Your task to perform on an android device: Search for custom made wallets on etsy.com Image 0: 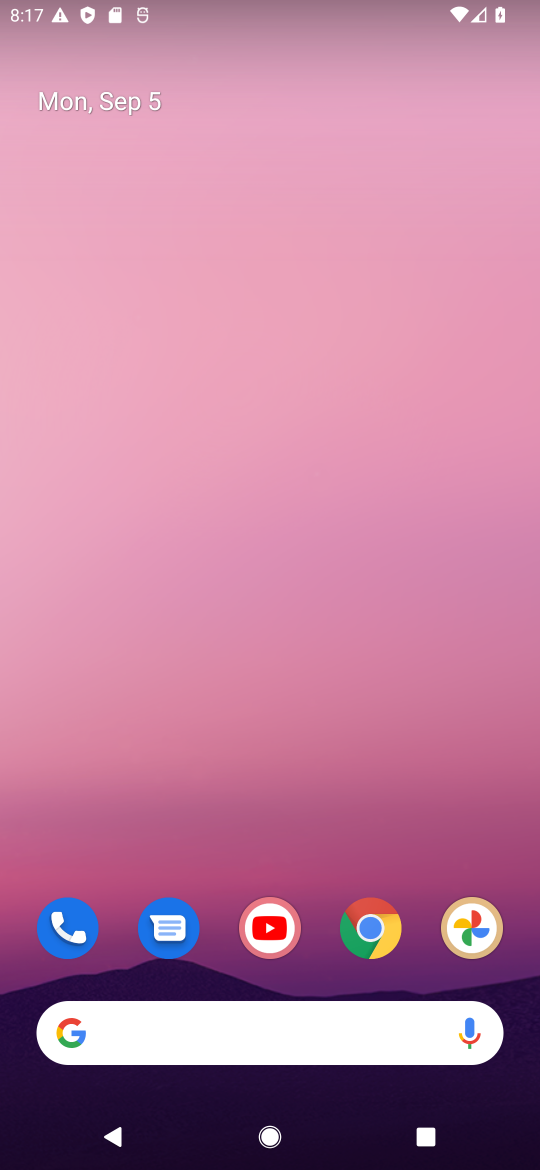
Step 0: click (369, 934)
Your task to perform on an android device: Search for custom made wallets on etsy.com Image 1: 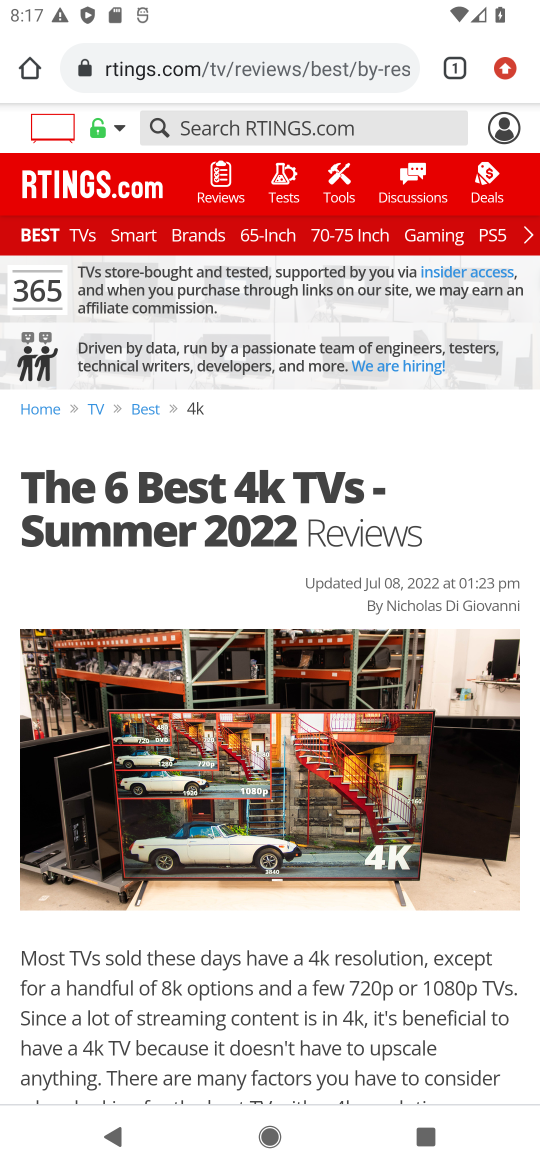
Step 1: click (253, 68)
Your task to perform on an android device: Search for custom made wallets on etsy.com Image 2: 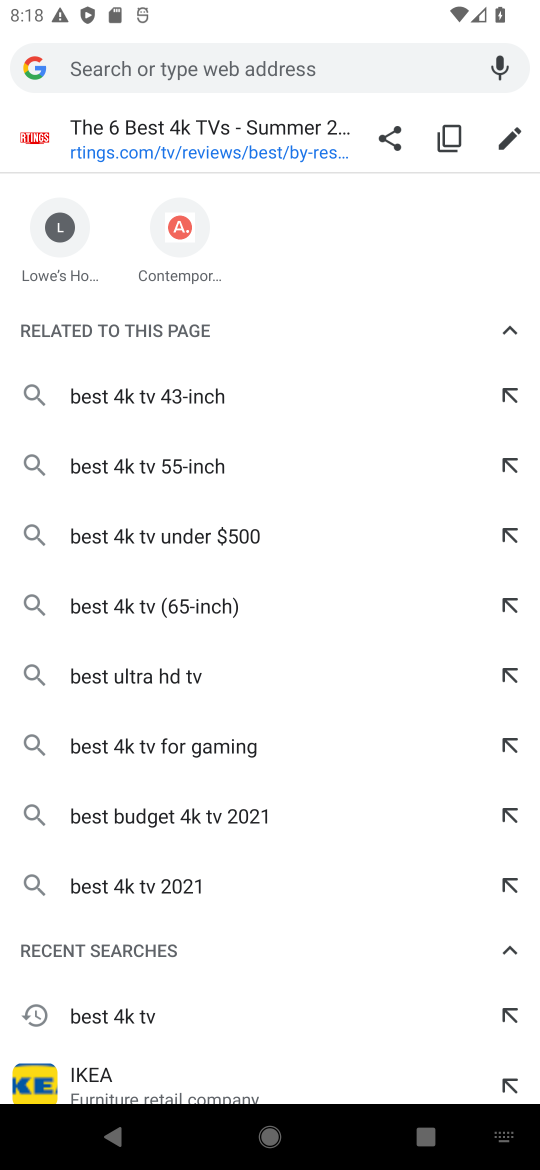
Step 2: type "etsy.com"
Your task to perform on an android device: Search for custom made wallets on etsy.com Image 3: 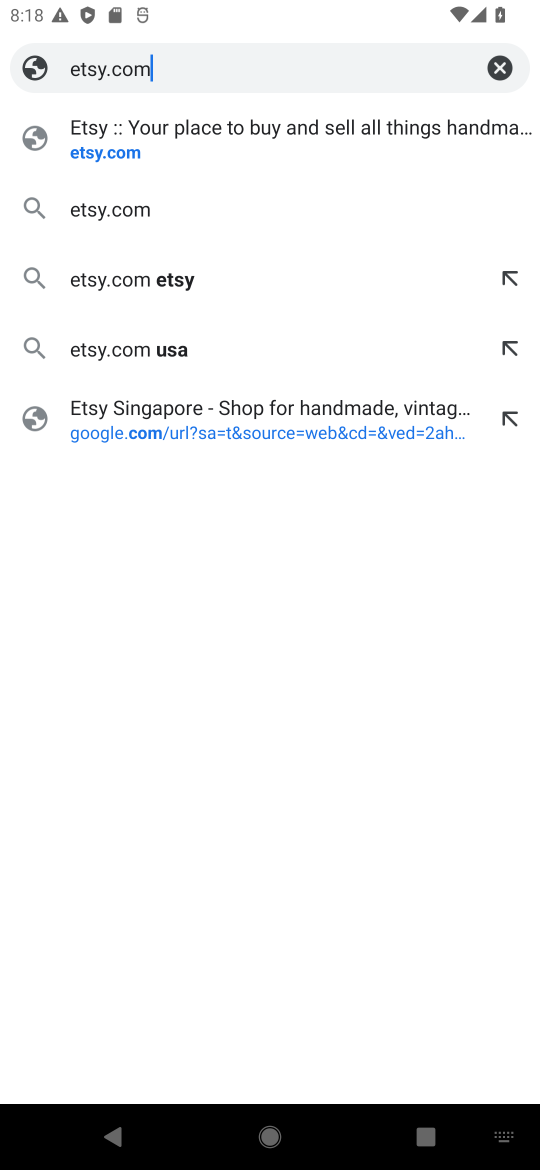
Step 3: click (206, 131)
Your task to perform on an android device: Search for custom made wallets on etsy.com Image 4: 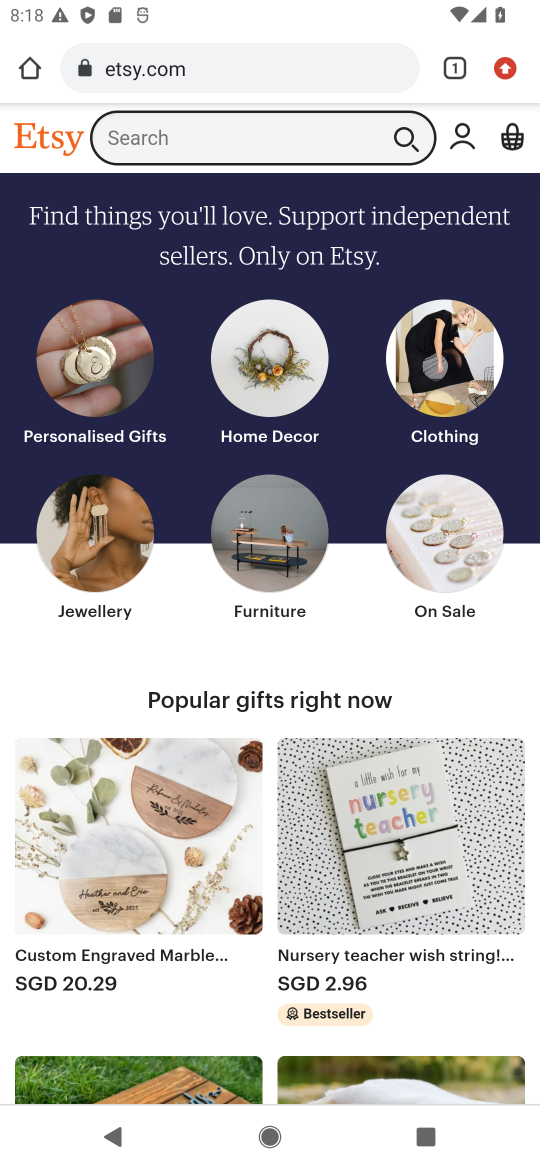
Step 4: click (320, 135)
Your task to perform on an android device: Search for custom made wallets on etsy.com Image 5: 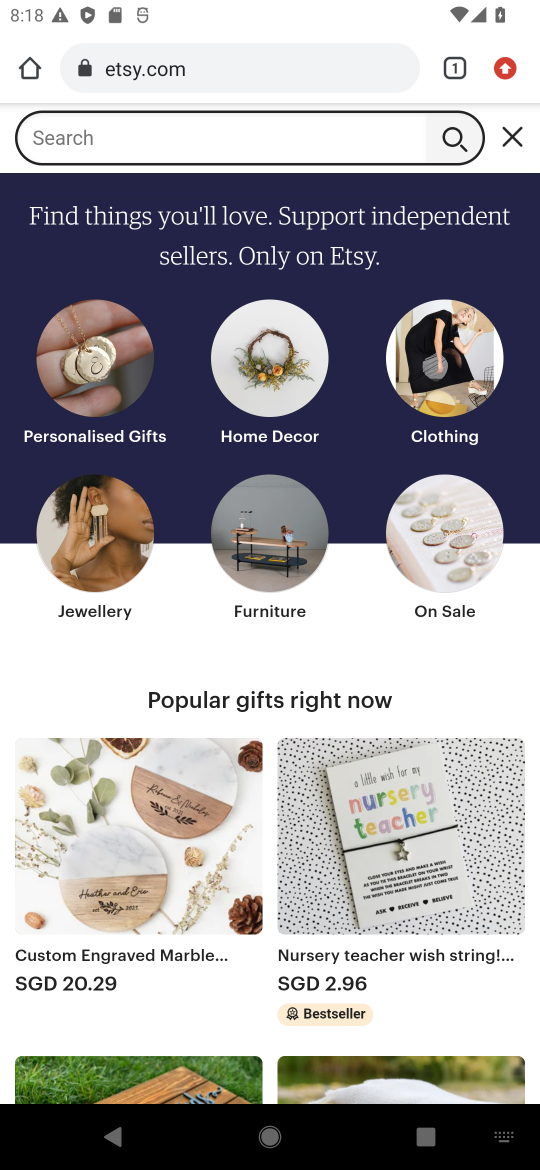
Step 5: type "custom made wallets"
Your task to perform on an android device: Search for custom made wallets on etsy.com Image 6: 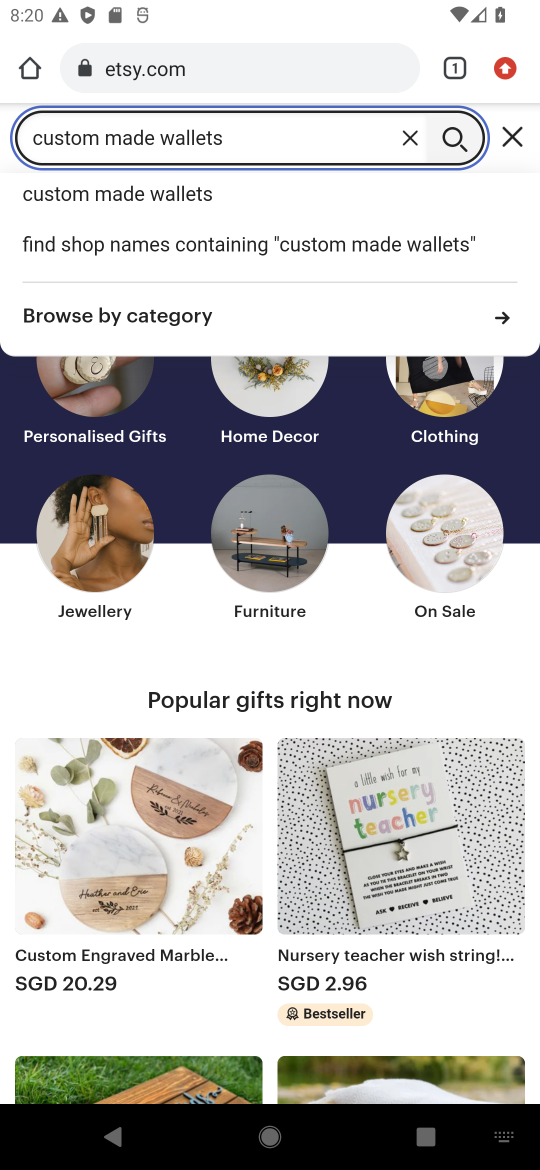
Step 6: click (264, 203)
Your task to perform on an android device: Search for custom made wallets on etsy.com Image 7: 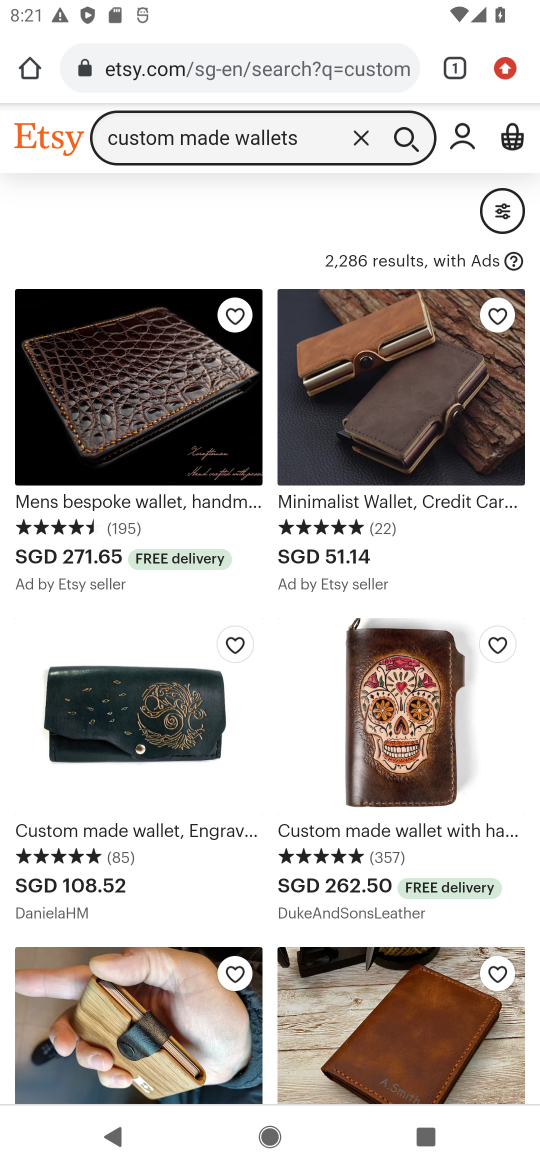
Step 7: task complete